Your task to perform on an android device: Open Google Maps and go to "Timeline" Image 0: 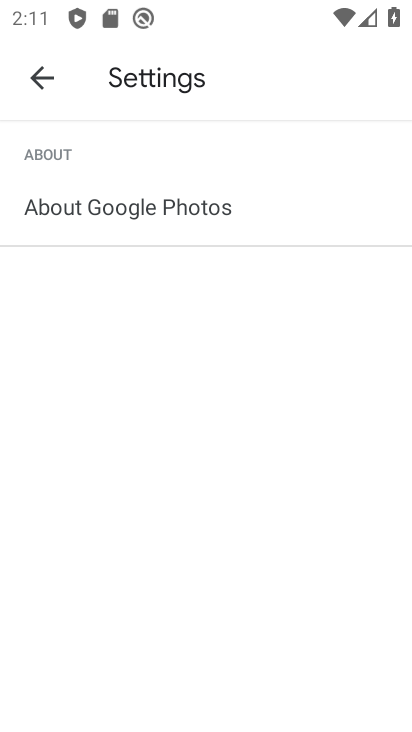
Step 0: press home button
Your task to perform on an android device: Open Google Maps and go to "Timeline" Image 1: 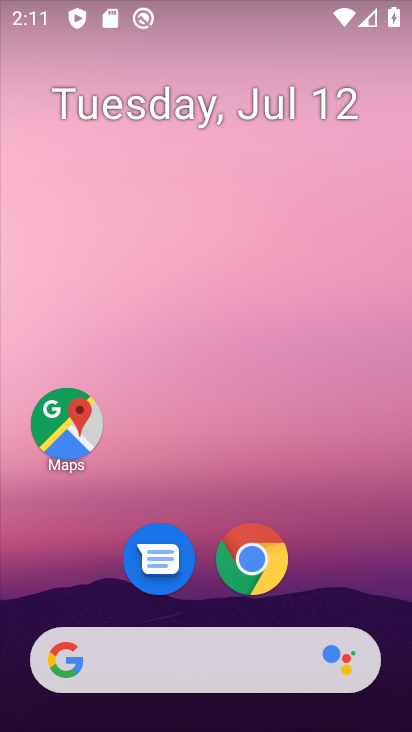
Step 1: drag from (383, 592) to (361, 173)
Your task to perform on an android device: Open Google Maps and go to "Timeline" Image 2: 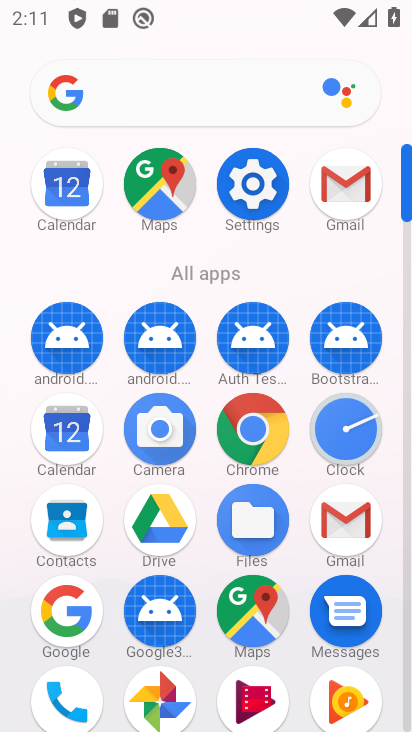
Step 2: click (255, 610)
Your task to perform on an android device: Open Google Maps and go to "Timeline" Image 3: 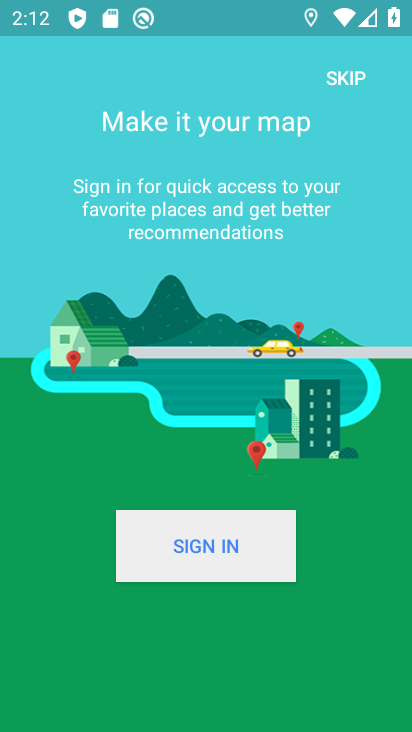
Step 3: click (338, 74)
Your task to perform on an android device: Open Google Maps and go to "Timeline" Image 4: 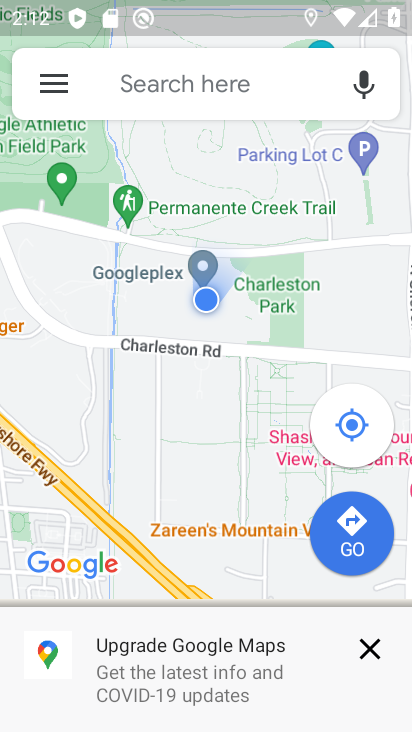
Step 4: click (56, 86)
Your task to perform on an android device: Open Google Maps and go to "Timeline" Image 5: 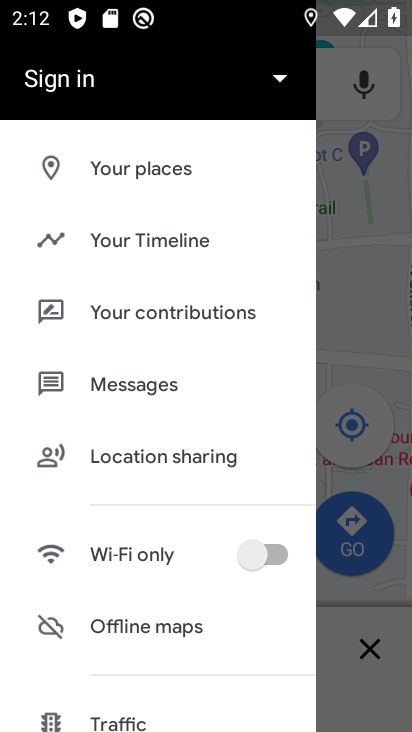
Step 5: click (134, 233)
Your task to perform on an android device: Open Google Maps and go to "Timeline" Image 6: 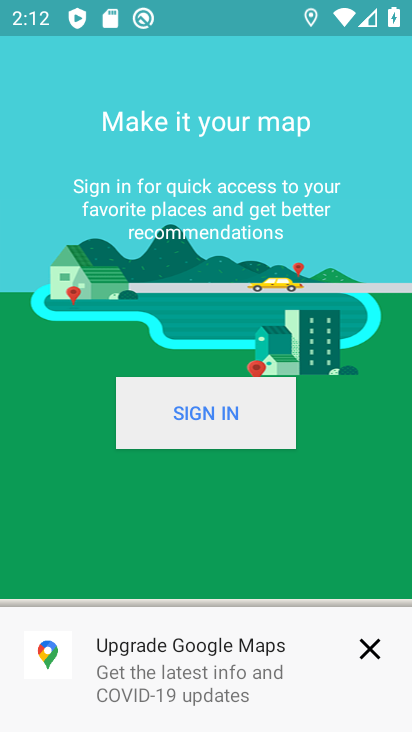
Step 6: task complete